Your task to perform on an android device: turn on javascript in the chrome app Image 0: 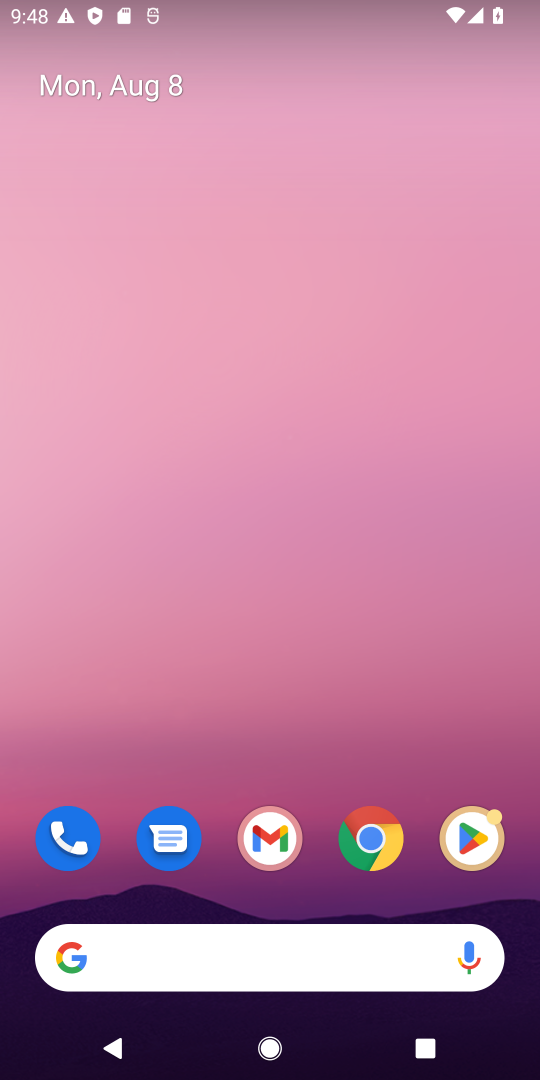
Step 0: press home button
Your task to perform on an android device: turn on javascript in the chrome app Image 1: 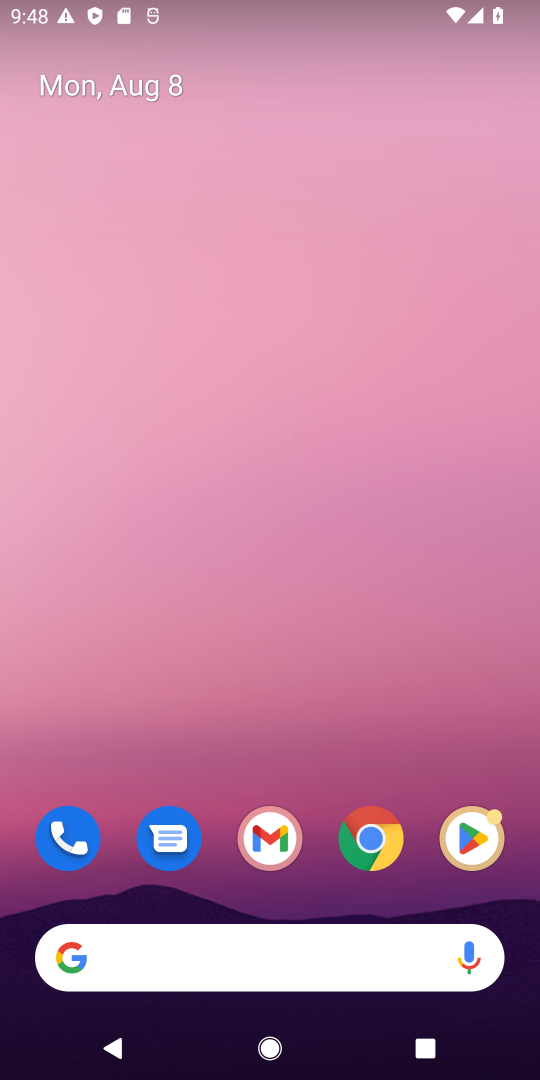
Step 1: click (366, 837)
Your task to perform on an android device: turn on javascript in the chrome app Image 2: 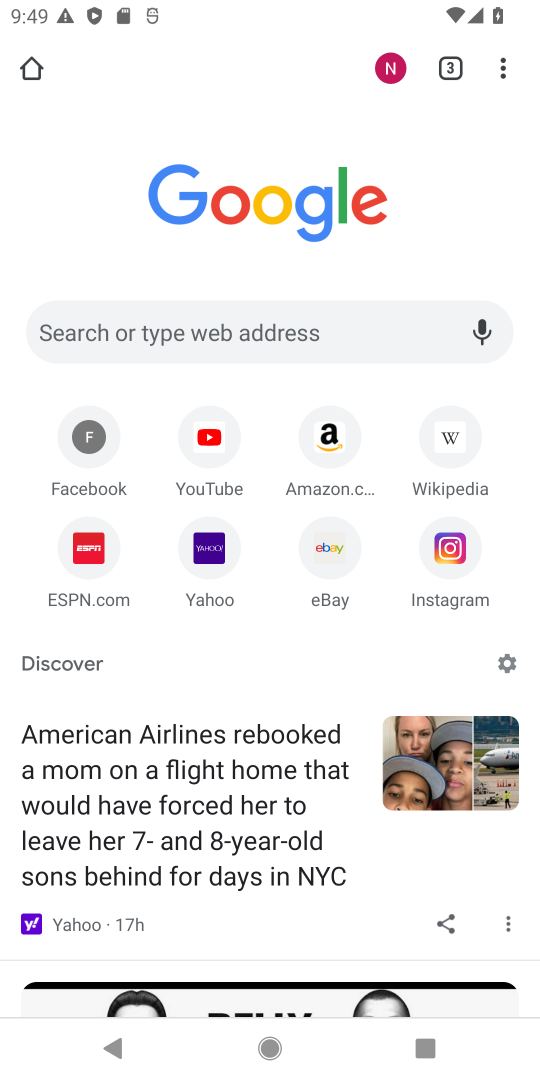
Step 2: drag from (501, 68) to (325, 704)
Your task to perform on an android device: turn on javascript in the chrome app Image 3: 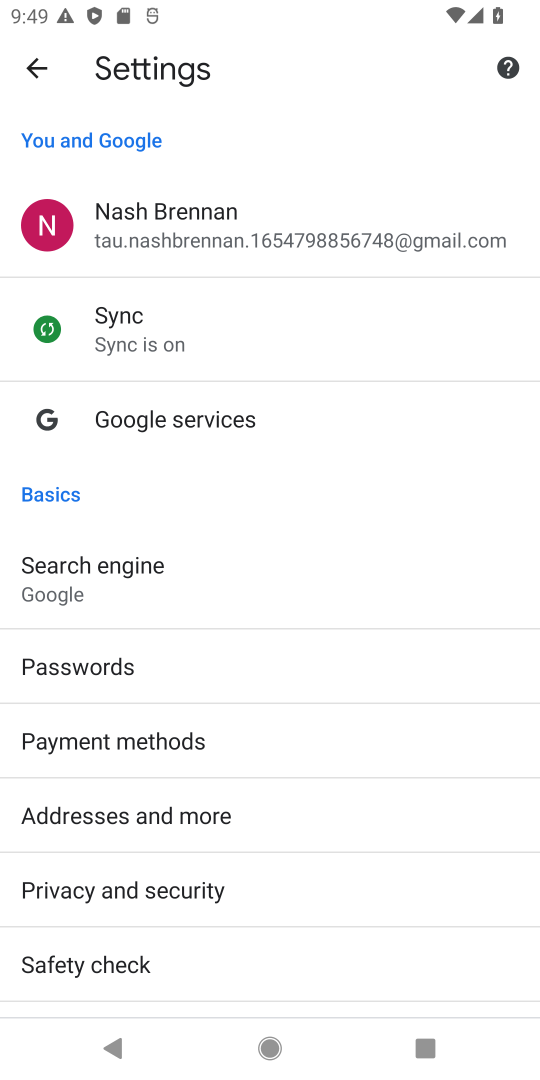
Step 3: drag from (305, 945) to (262, 259)
Your task to perform on an android device: turn on javascript in the chrome app Image 4: 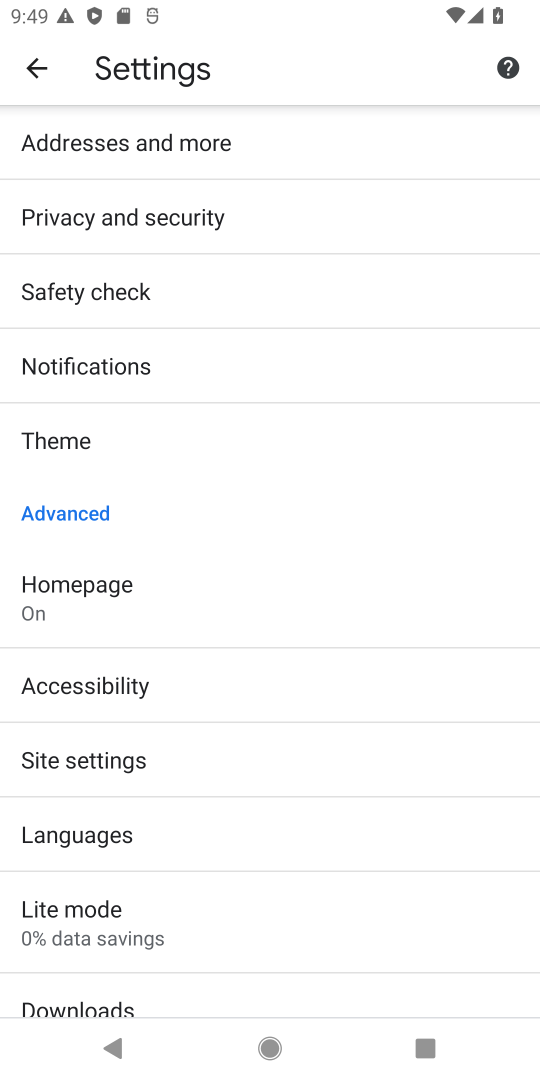
Step 4: click (92, 763)
Your task to perform on an android device: turn on javascript in the chrome app Image 5: 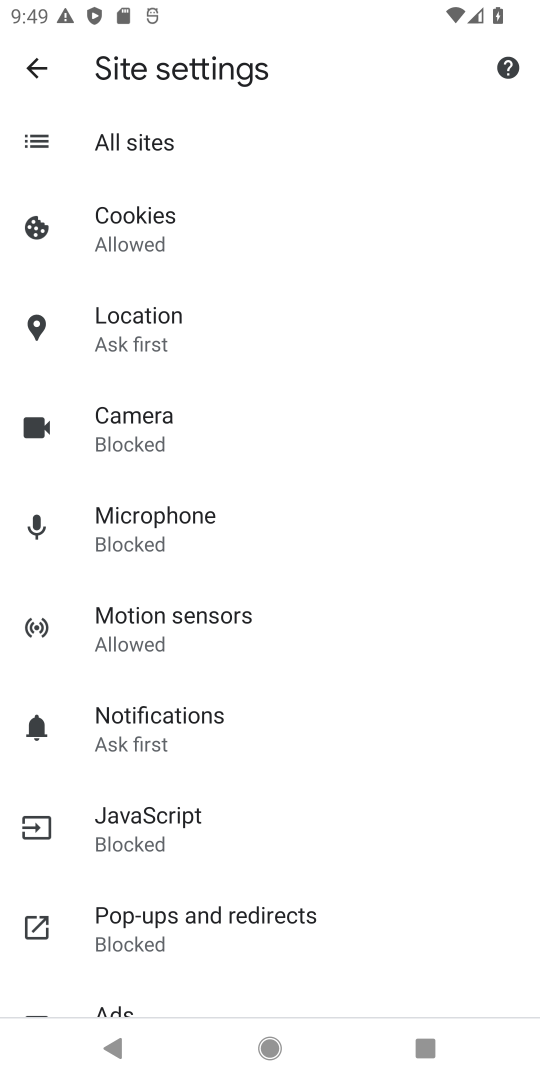
Step 5: click (165, 831)
Your task to perform on an android device: turn on javascript in the chrome app Image 6: 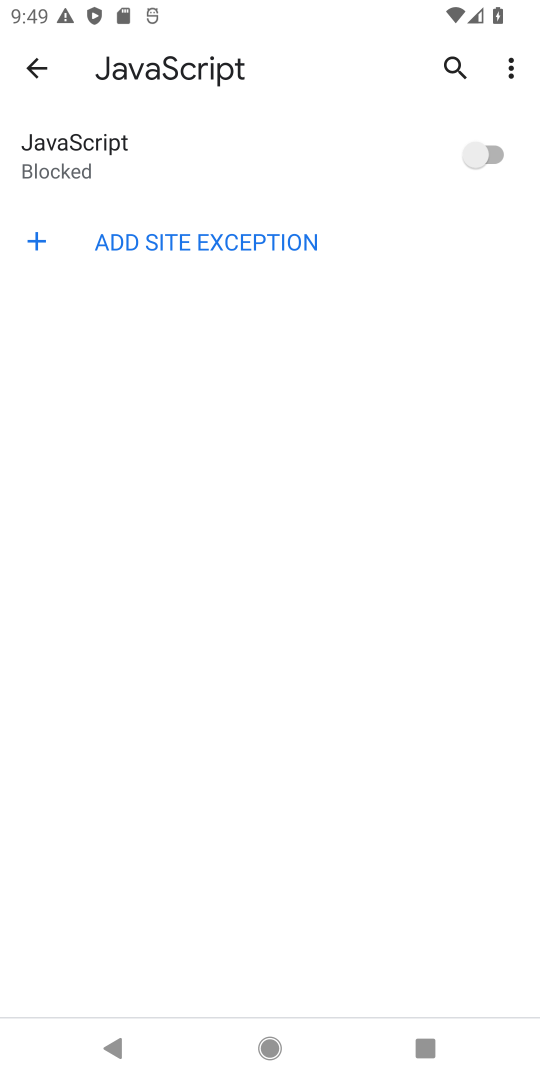
Step 6: click (480, 157)
Your task to perform on an android device: turn on javascript in the chrome app Image 7: 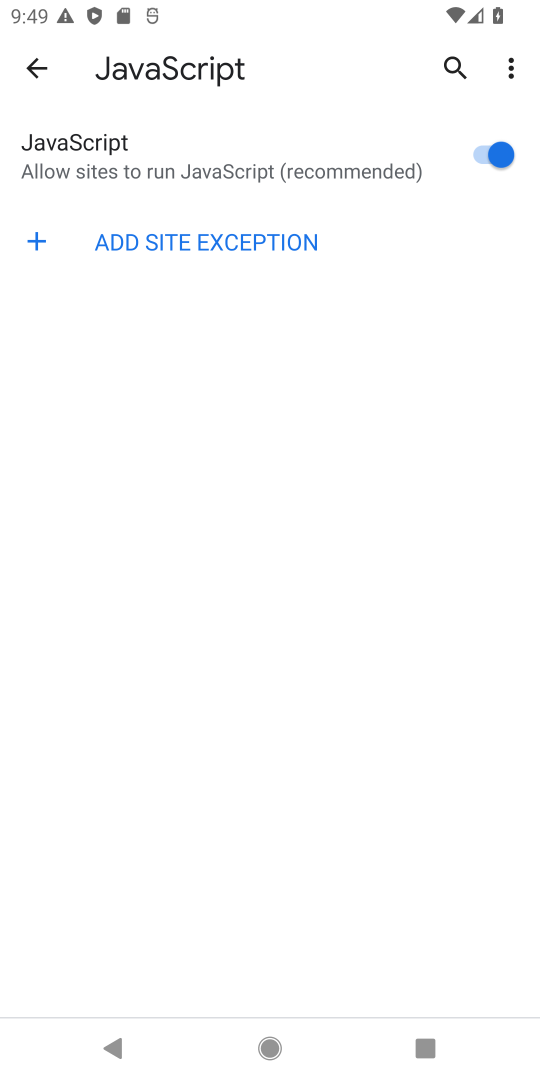
Step 7: task complete